Your task to perform on an android device: Check the weather Image 0: 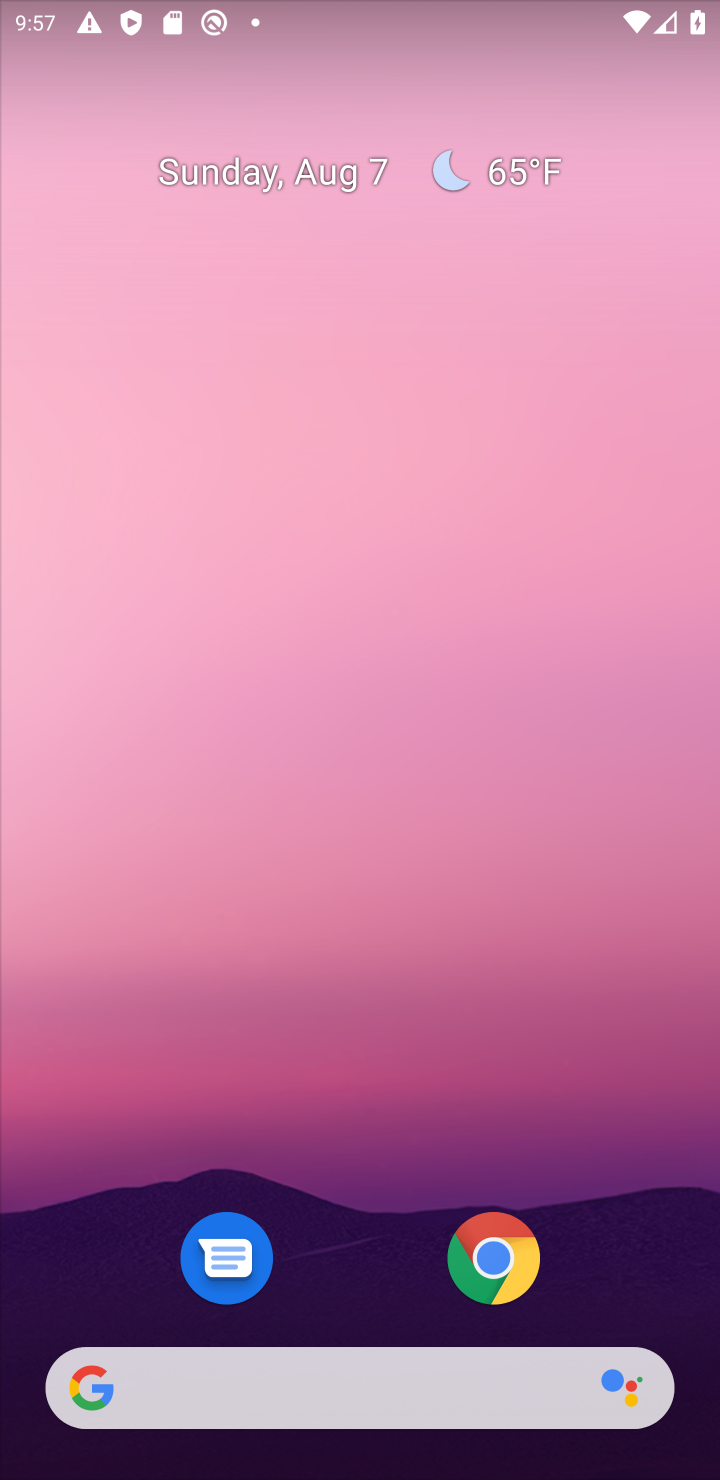
Step 0: press home button
Your task to perform on an android device: Check the weather Image 1: 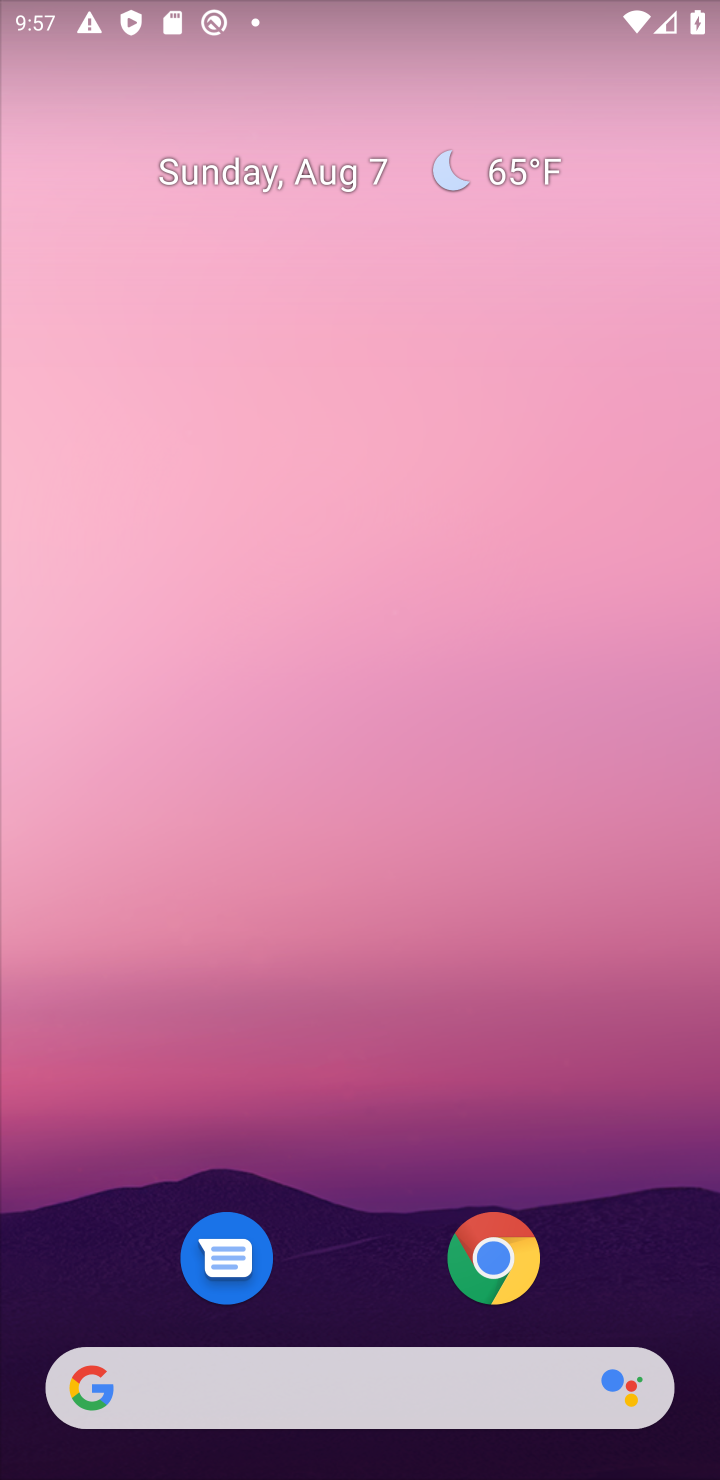
Step 1: drag from (380, 1213) to (511, 331)
Your task to perform on an android device: Check the weather Image 2: 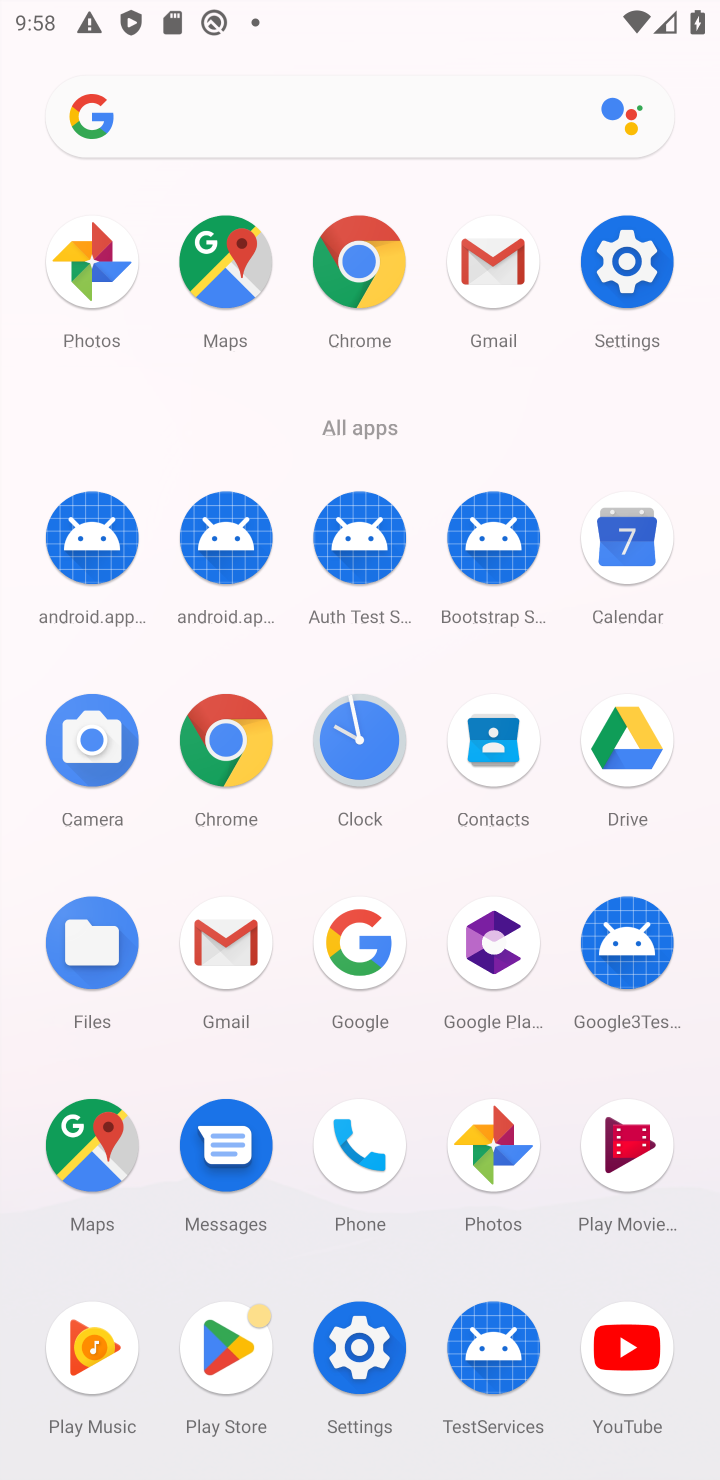
Step 2: click (362, 253)
Your task to perform on an android device: Check the weather Image 3: 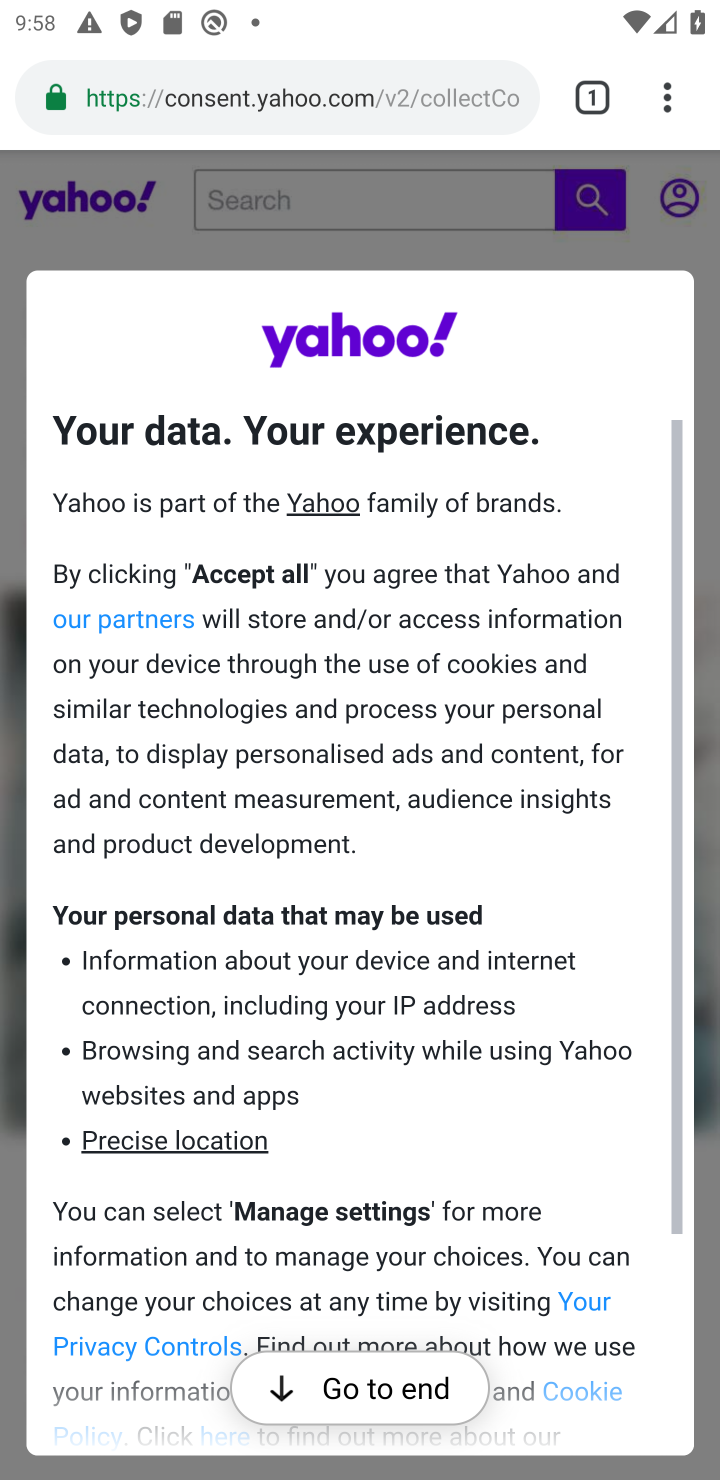
Step 3: click (379, 112)
Your task to perform on an android device: Check the weather Image 4: 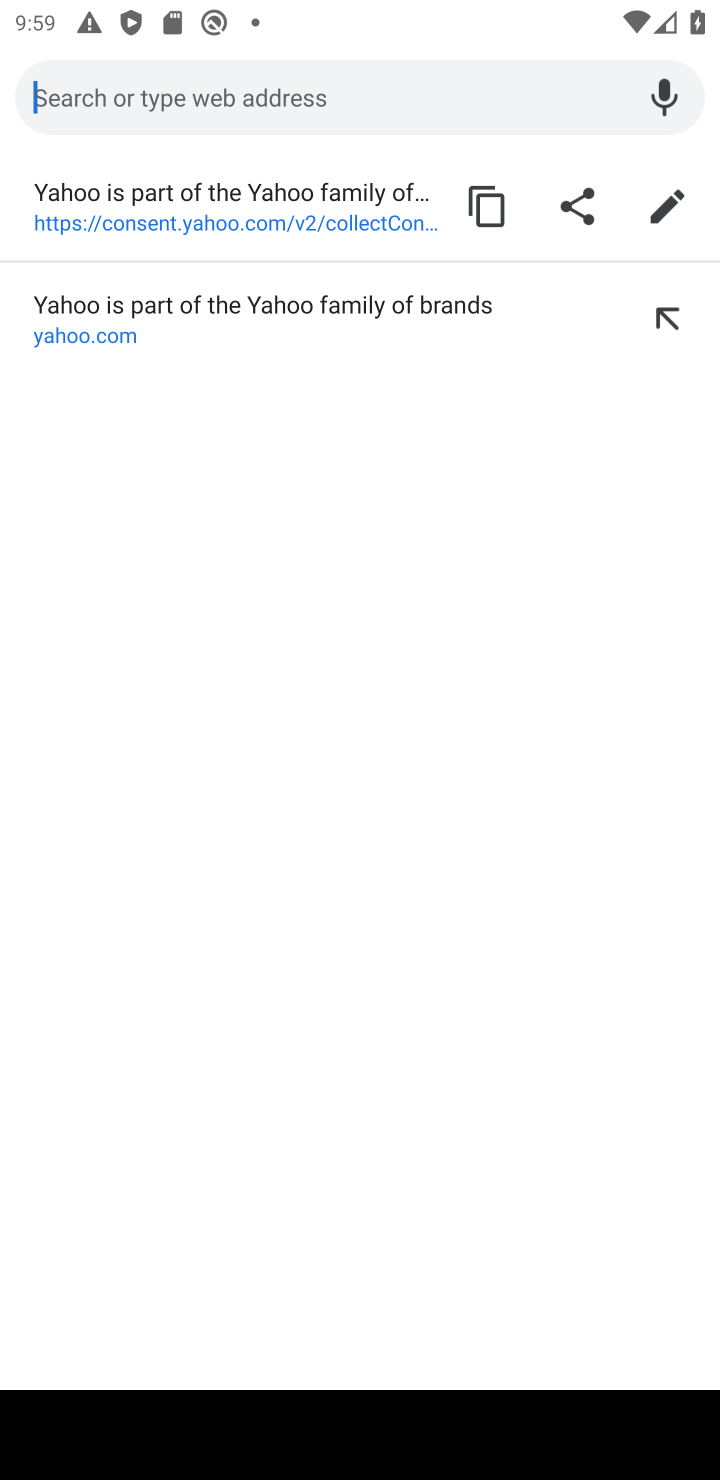
Step 4: type " weather"
Your task to perform on an android device: Check the weather Image 5: 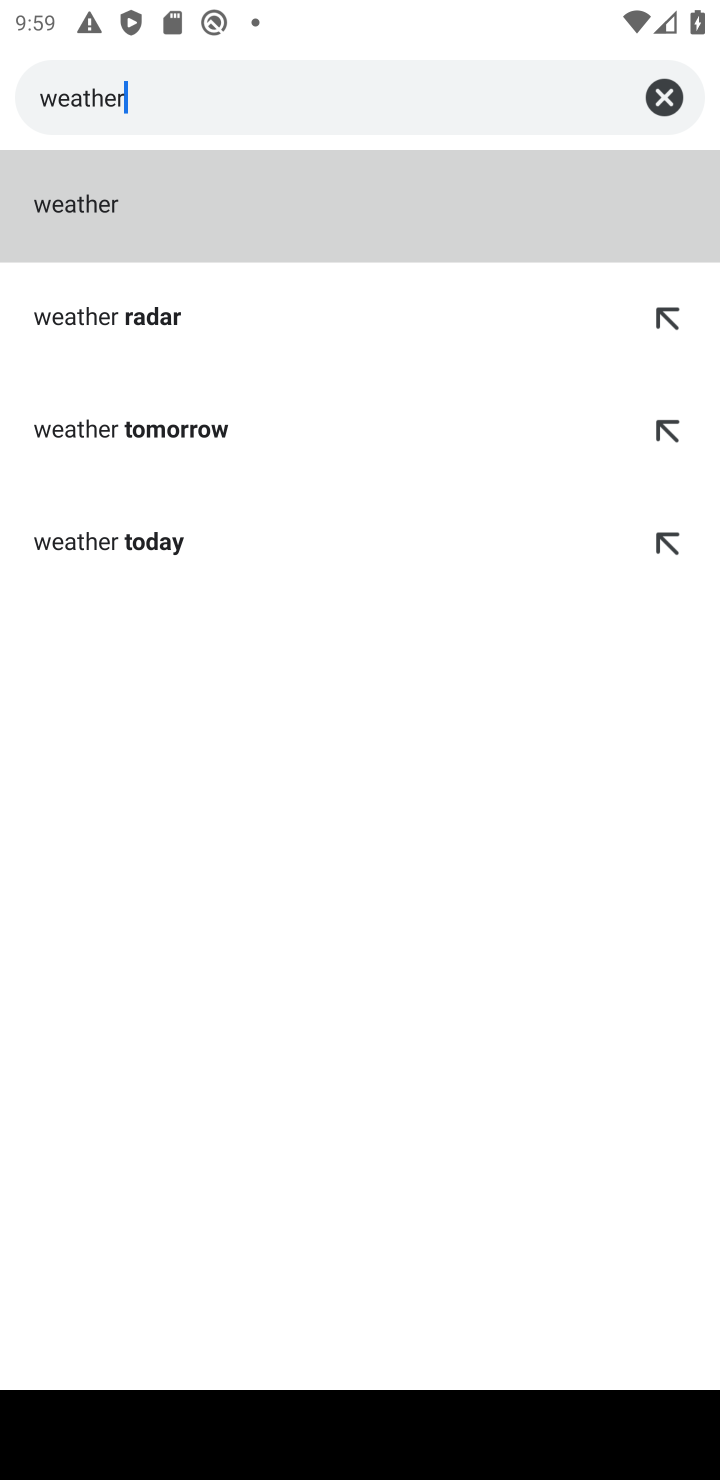
Step 5: type ""
Your task to perform on an android device: Check the weather Image 6: 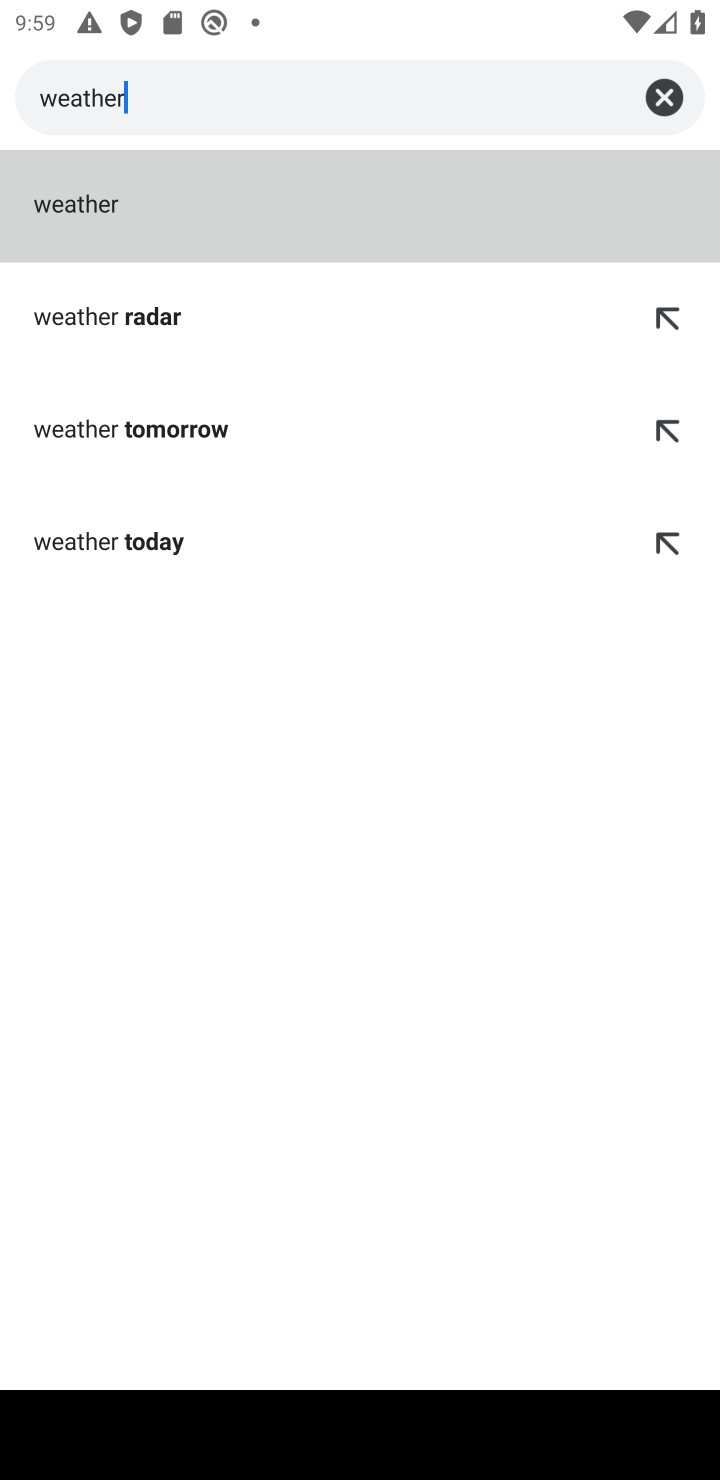
Step 6: click (197, 196)
Your task to perform on an android device: Check the weather Image 7: 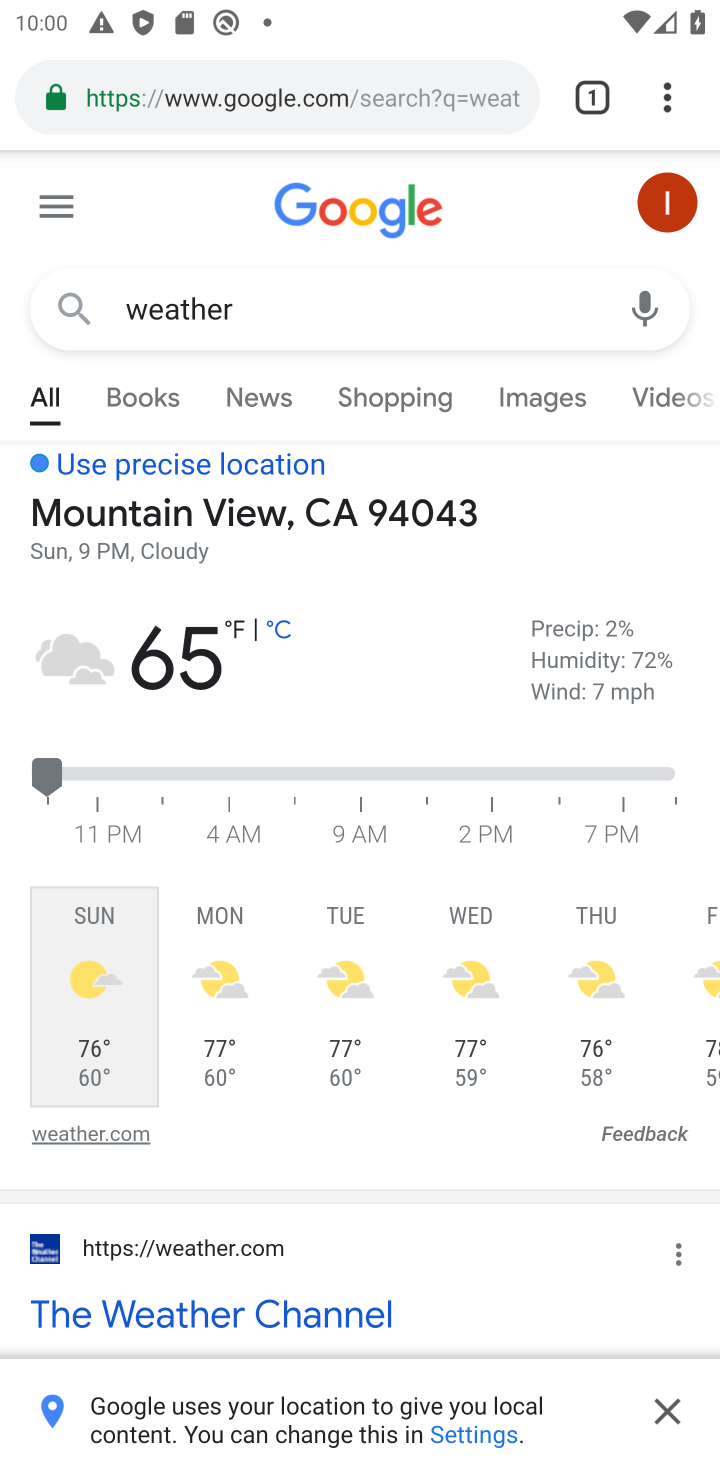
Step 7: task complete